Your task to perform on an android device: Open Google Chrome Image 0: 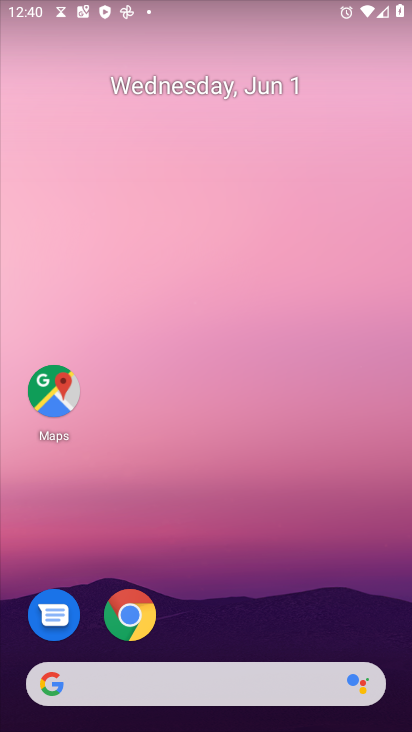
Step 0: drag from (319, 574) to (278, 8)
Your task to perform on an android device: Open Google Chrome Image 1: 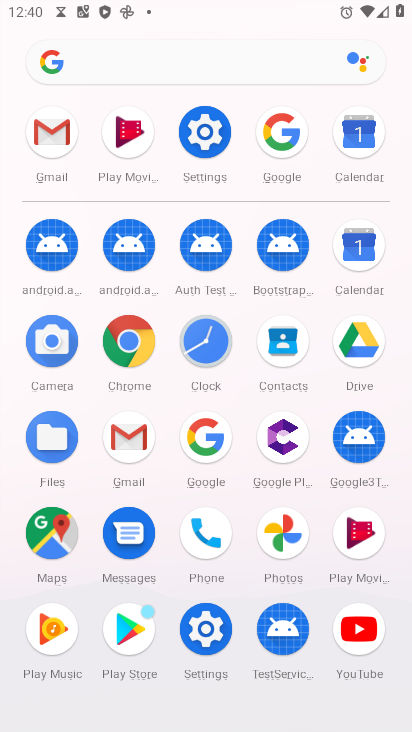
Step 1: click (109, 352)
Your task to perform on an android device: Open Google Chrome Image 2: 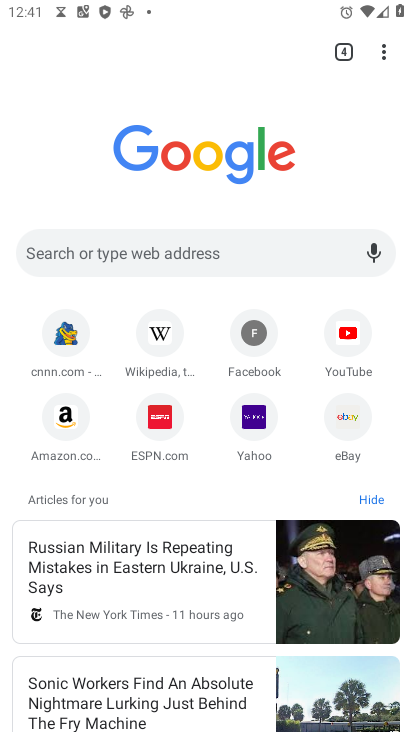
Step 2: task complete